Your task to perform on an android device: Check the weather Image 0: 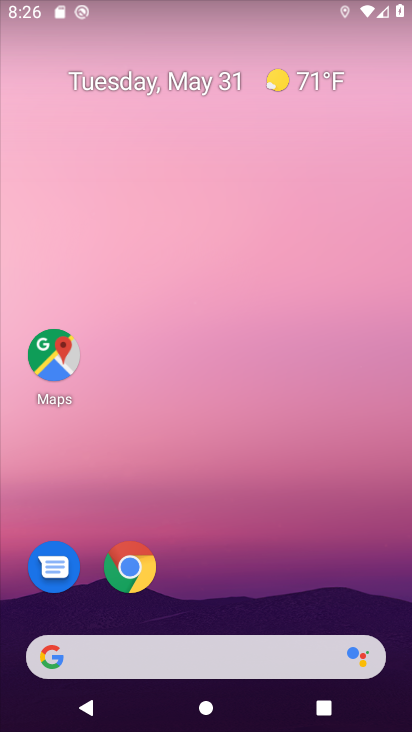
Step 0: drag from (206, 573) to (231, 249)
Your task to perform on an android device: Check the weather Image 1: 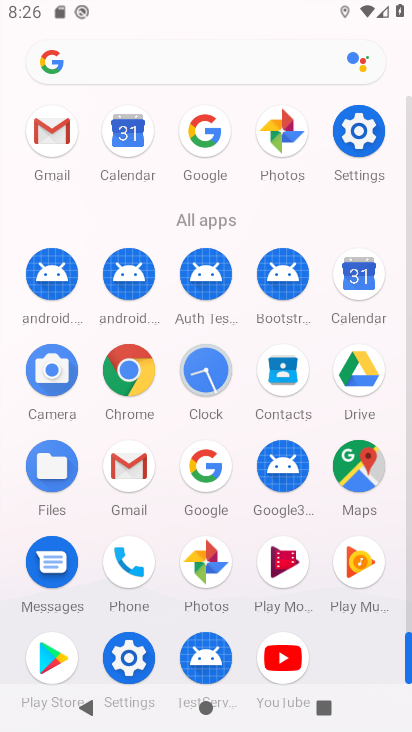
Step 1: click (213, 463)
Your task to perform on an android device: Check the weather Image 2: 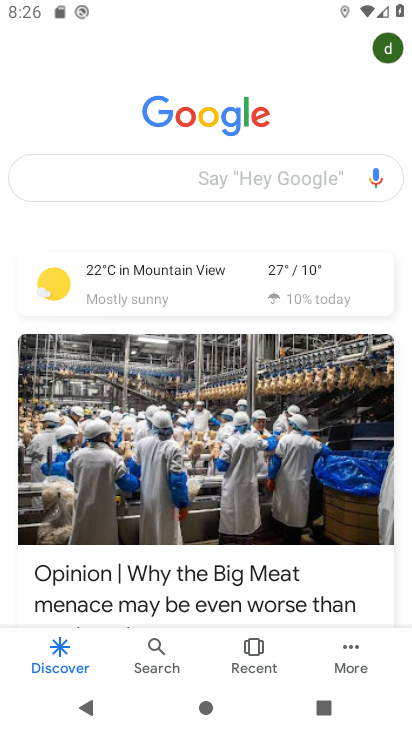
Step 2: click (163, 289)
Your task to perform on an android device: Check the weather Image 3: 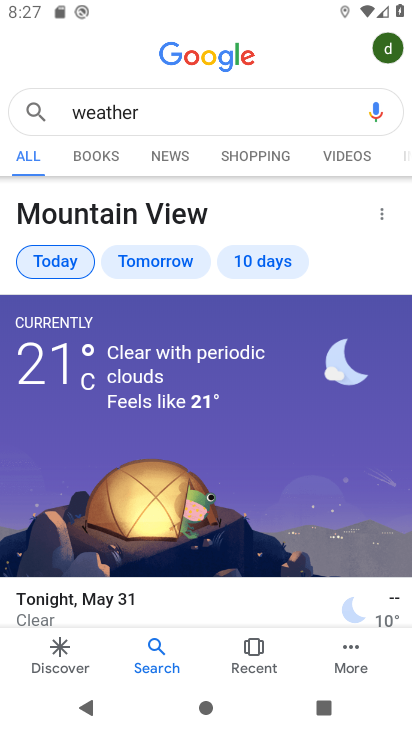
Step 3: task complete